Your task to perform on an android device: empty trash in google photos Image 0: 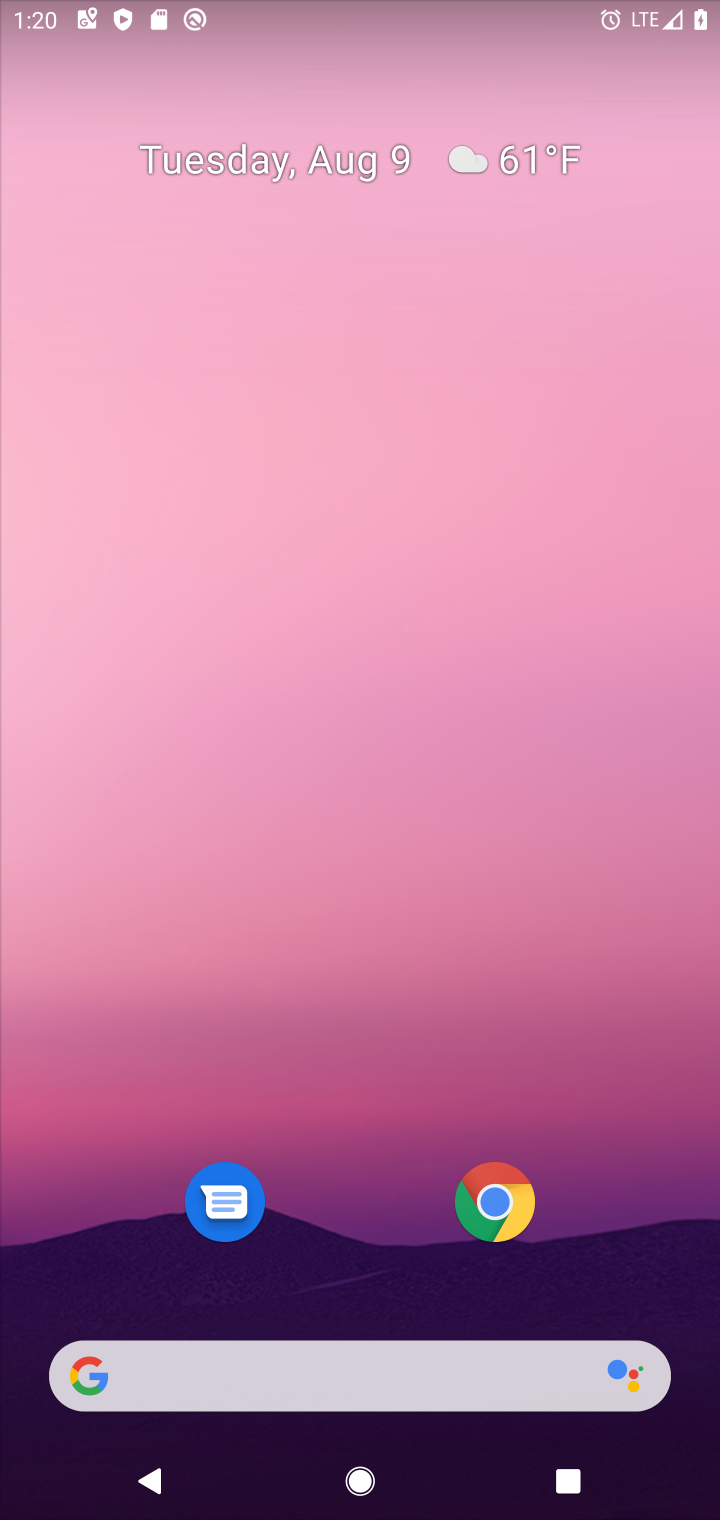
Step 0: drag from (303, 996) to (249, 168)
Your task to perform on an android device: empty trash in google photos Image 1: 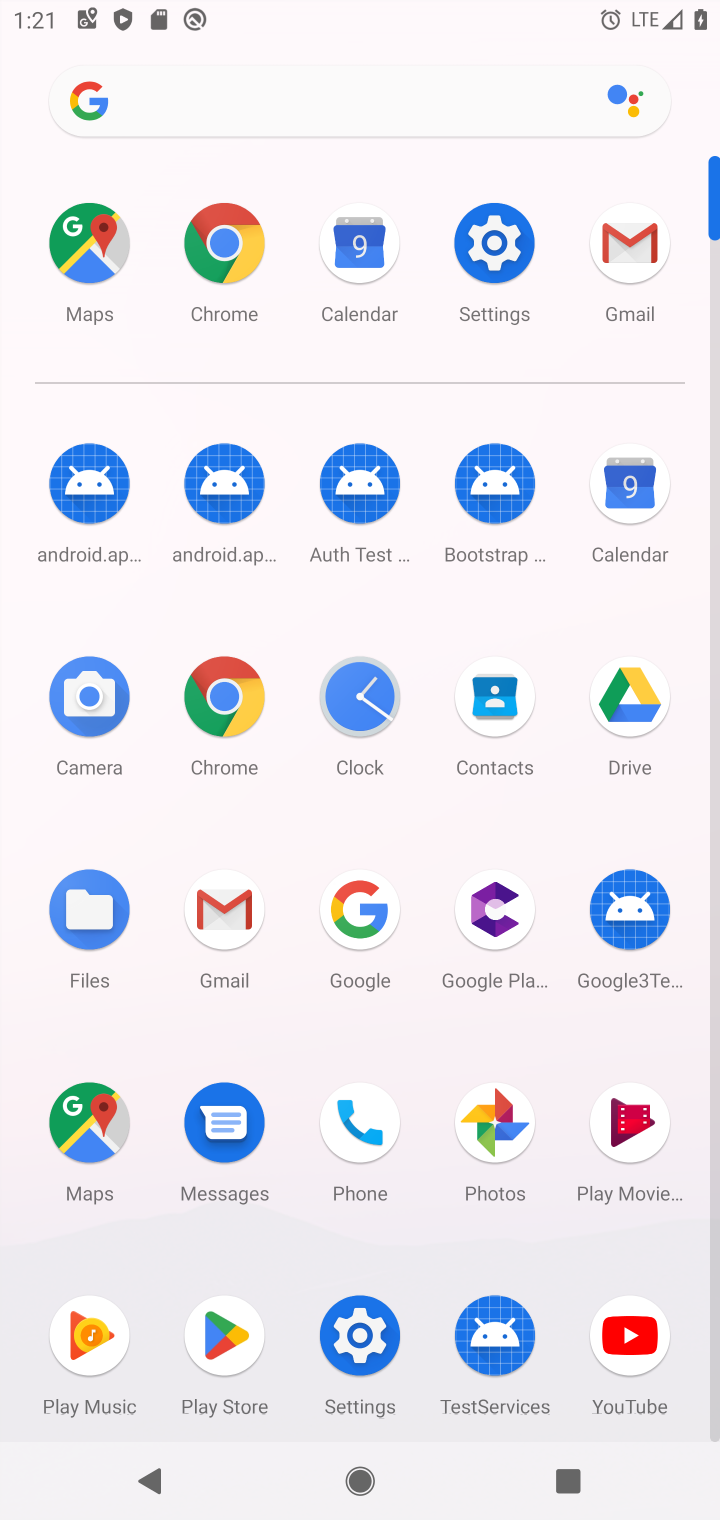
Step 1: click (503, 1120)
Your task to perform on an android device: empty trash in google photos Image 2: 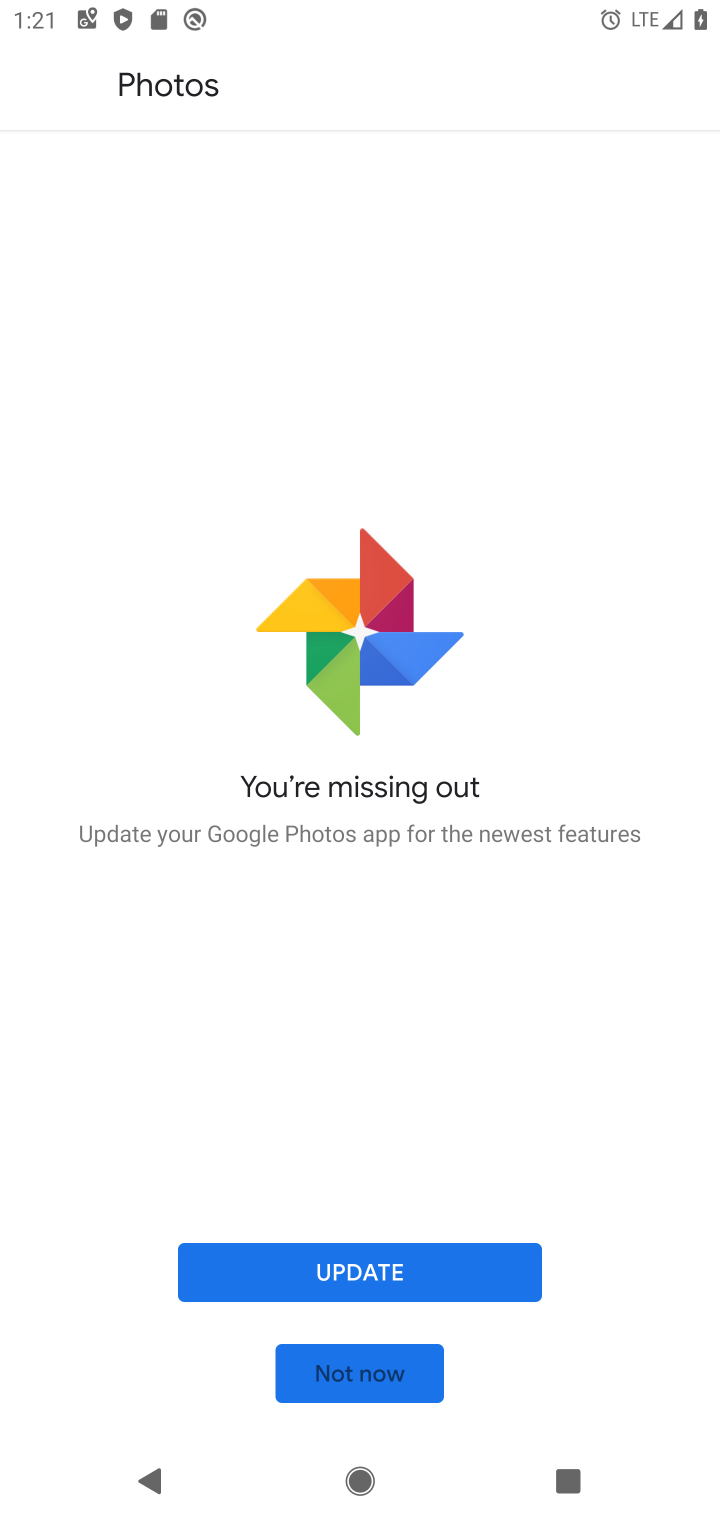
Step 2: click (320, 1255)
Your task to perform on an android device: empty trash in google photos Image 3: 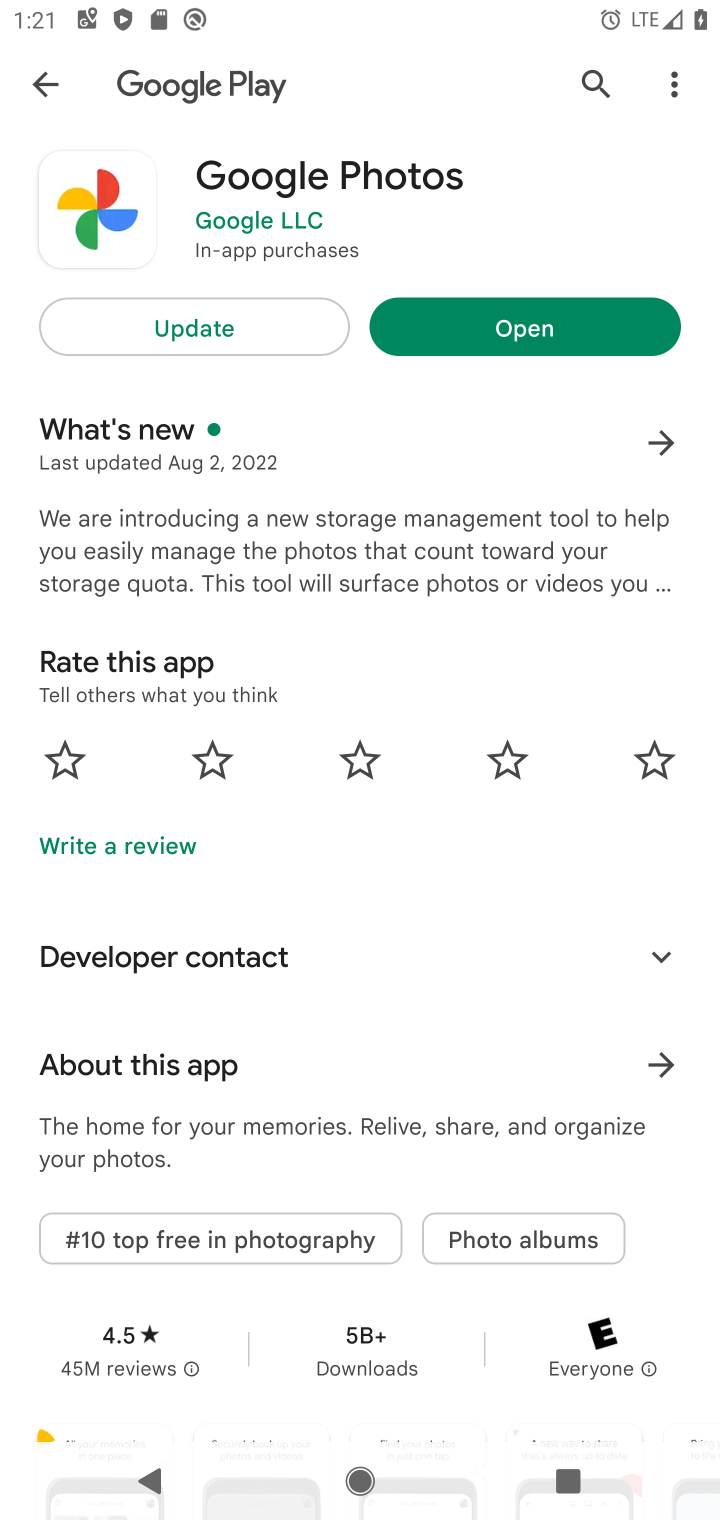
Step 3: click (244, 322)
Your task to perform on an android device: empty trash in google photos Image 4: 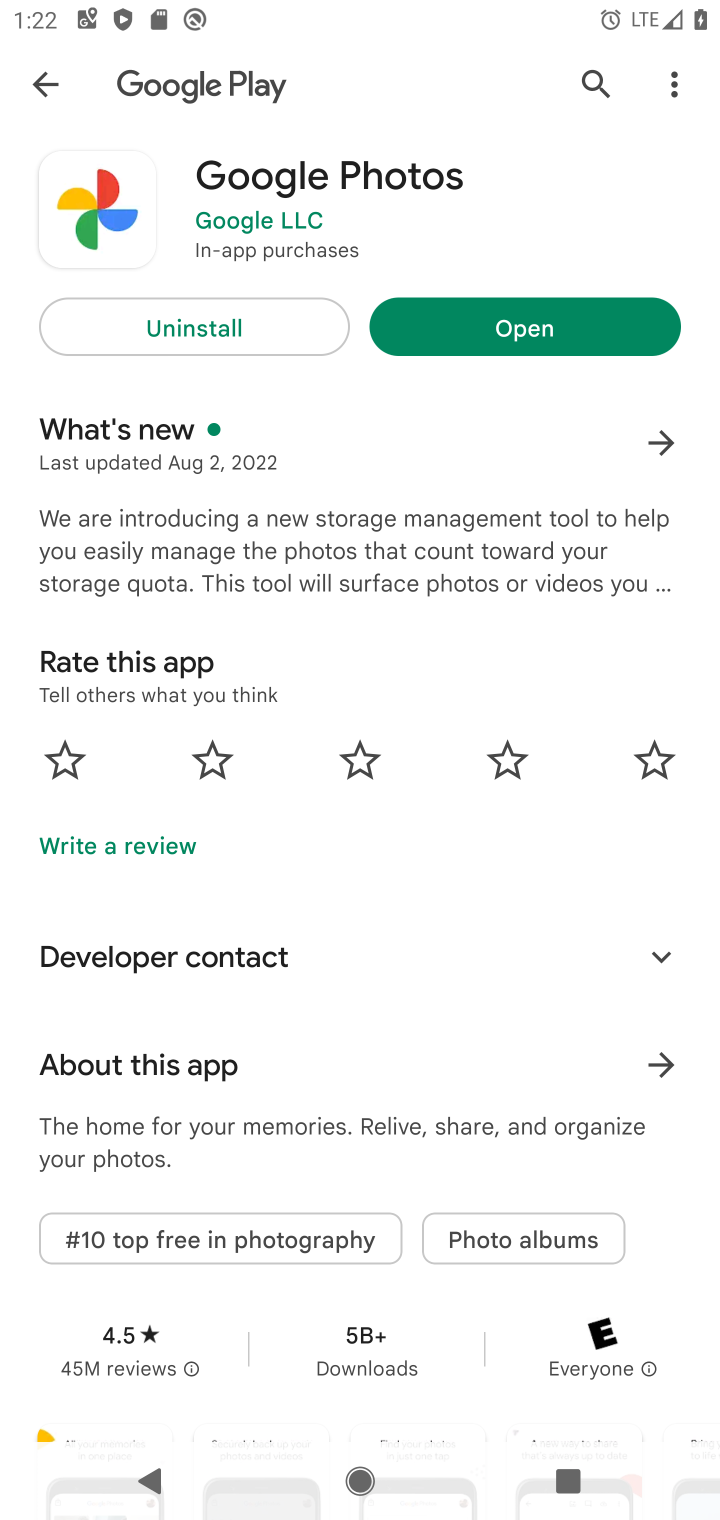
Step 4: click (514, 307)
Your task to perform on an android device: empty trash in google photos Image 5: 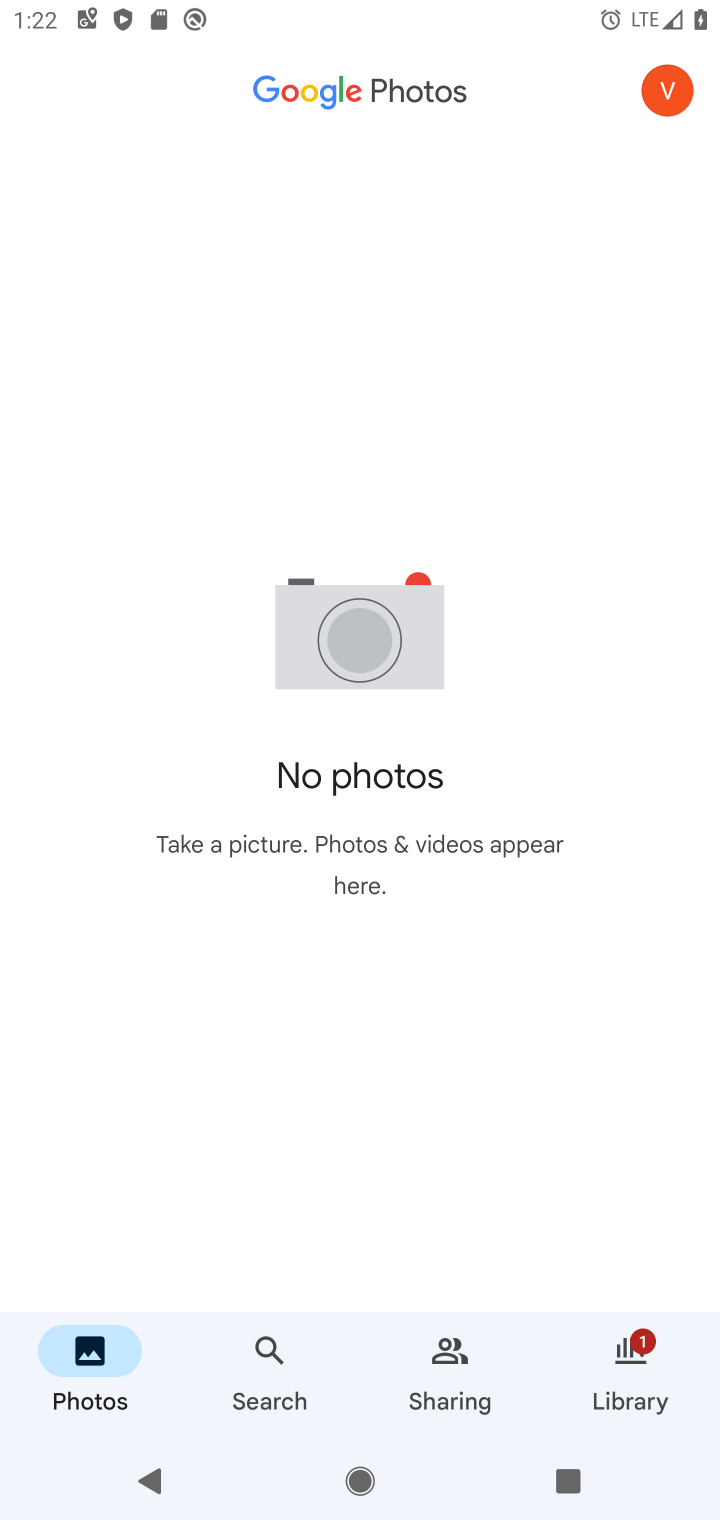
Step 5: click (666, 1378)
Your task to perform on an android device: empty trash in google photos Image 6: 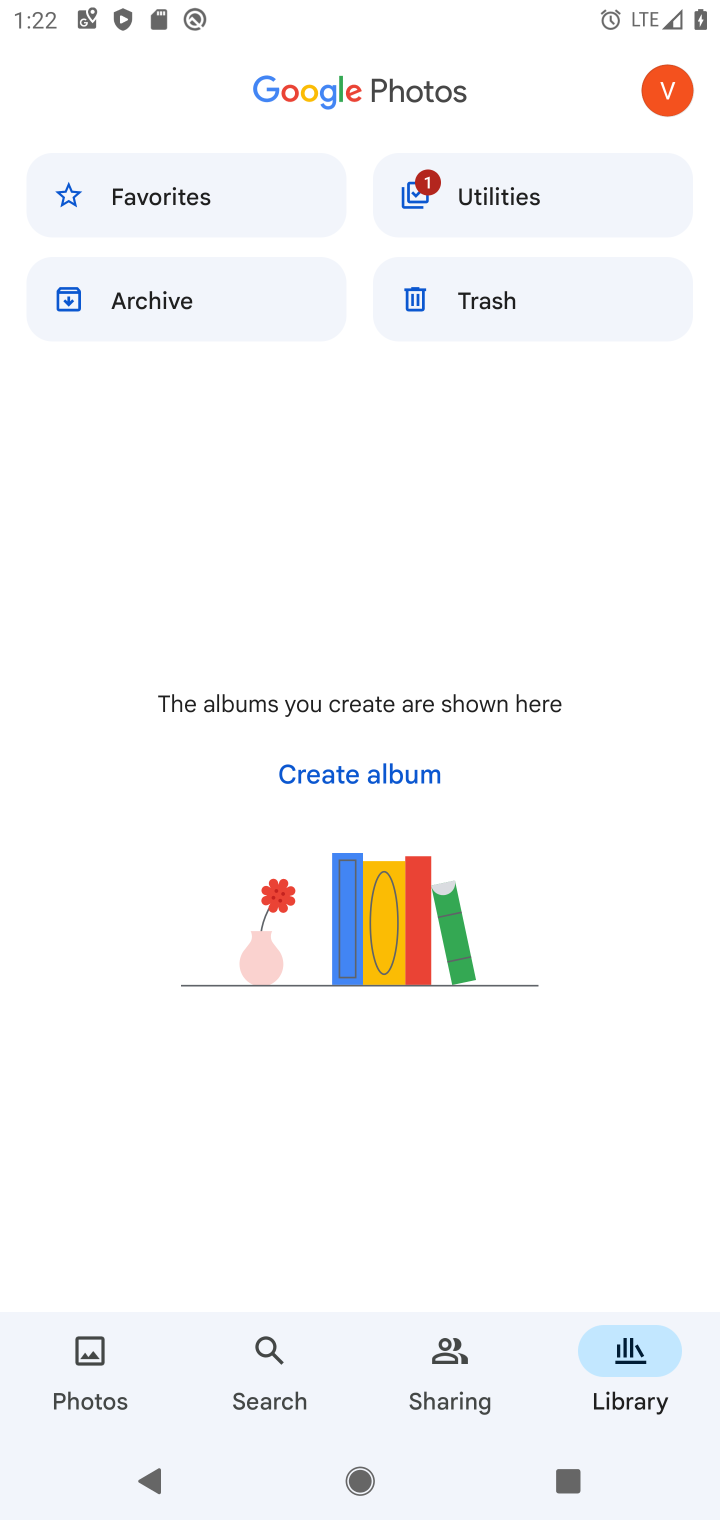
Step 6: click (492, 288)
Your task to perform on an android device: empty trash in google photos Image 7: 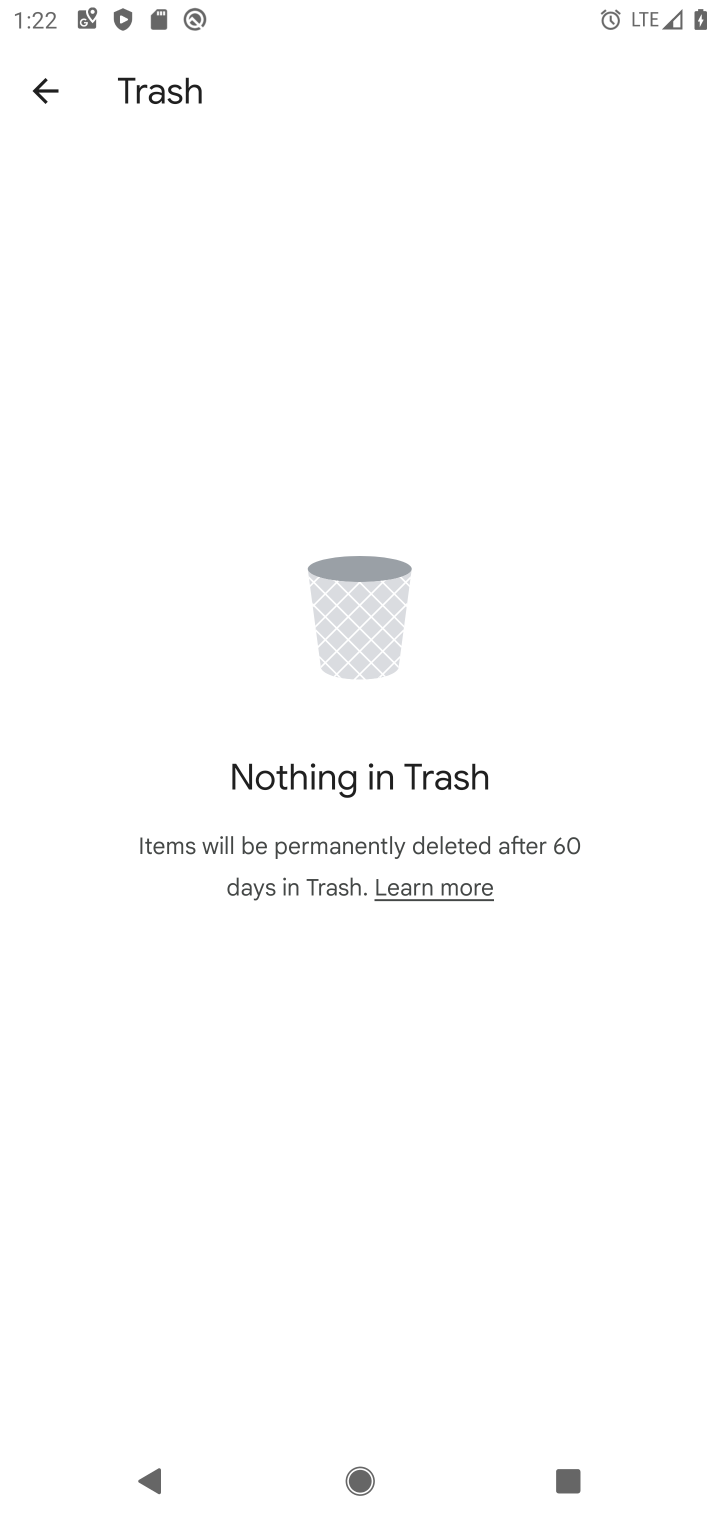
Step 7: task complete